Your task to perform on an android device: change notification settings in the gmail app Image 0: 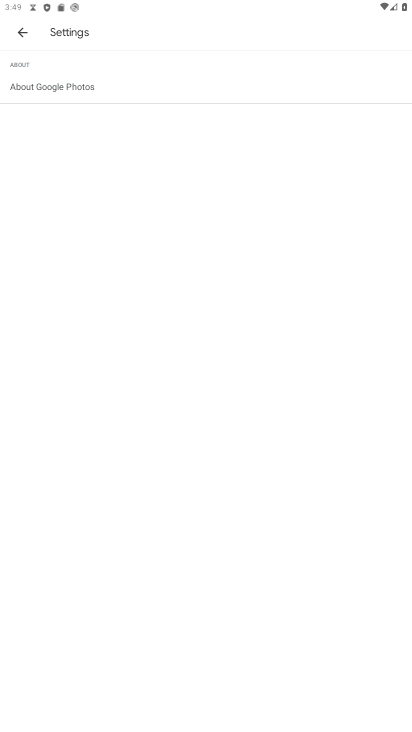
Step 0: press home button
Your task to perform on an android device: change notification settings in the gmail app Image 1: 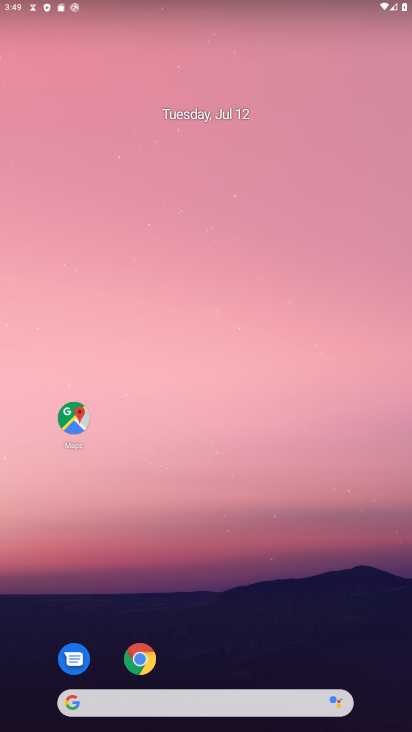
Step 1: press home button
Your task to perform on an android device: change notification settings in the gmail app Image 2: 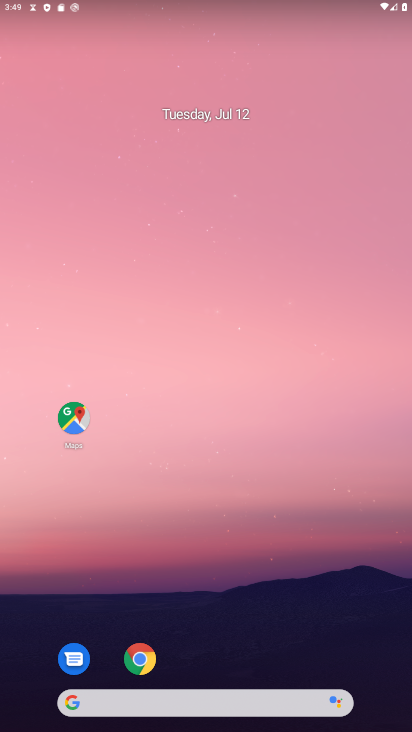
Step 2: drag from (239, 630) to (214, 94)
Your task to perform on an android device: change notification settings in the gmail app Image 3: 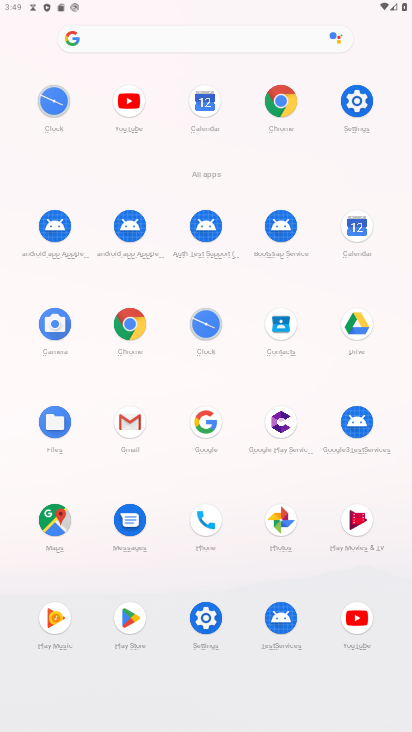
Step 3: click (127, 430)
Your task to perform on an android device: change notification settings in the gmail app Image 4: 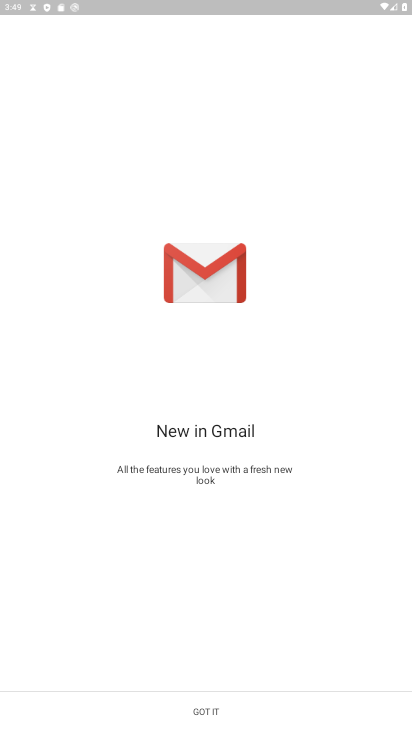
Step 4: click (206, 709)
Your task to perform on an android device: change notification settings in the gmail app Image 5: 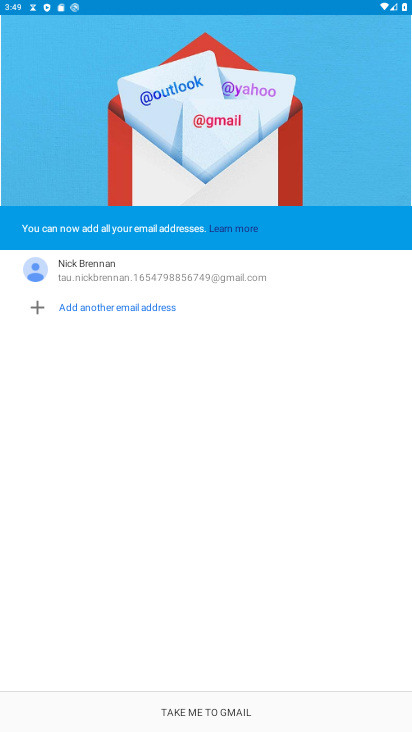
Step 5: click (206, 709)
Your task to perform on an android device: change notification settings in the gmail app Image 6: 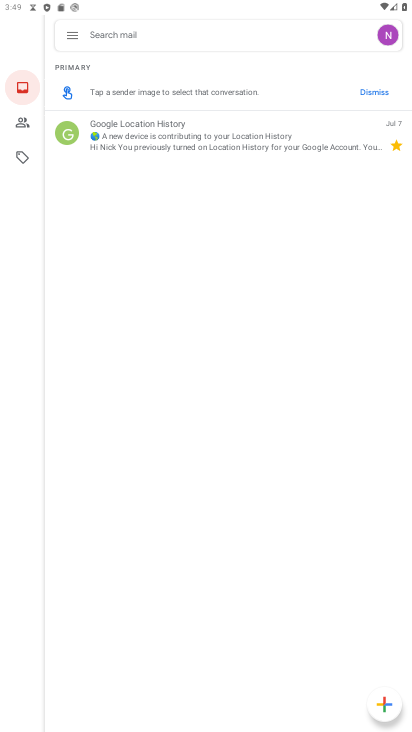
Step 6: click (68, 33)
Your task to perform on an android device: change notification settings in the gmail app Image 7: 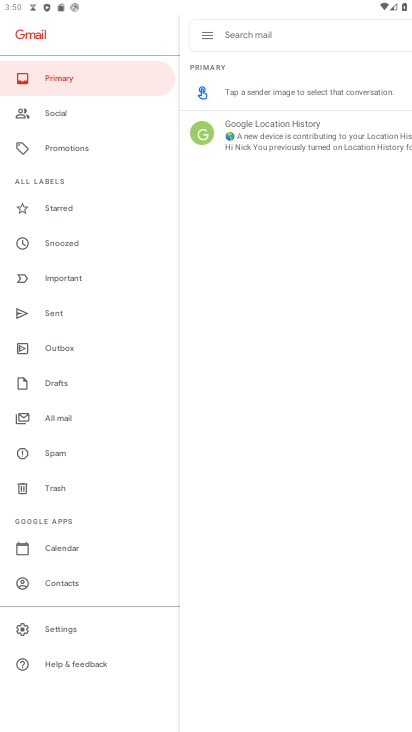
Step 7: click (74, 624)
Your task to perform on an android device: change notification settings in the gmail app Image 8: 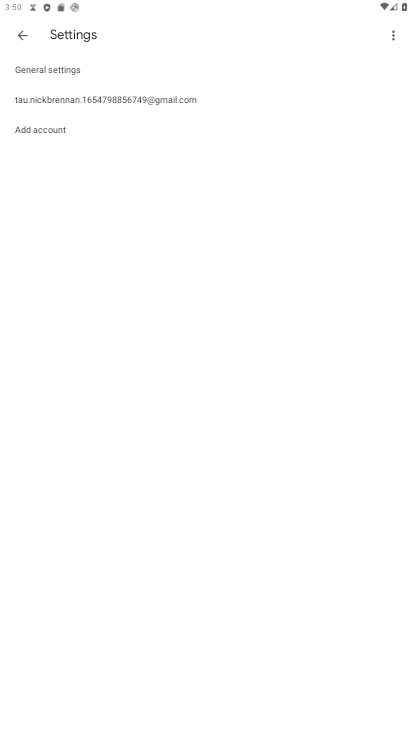
Step 8: click (65, 104)
Your task to perform on an android device: change notification settings in the gmail app Image 9: 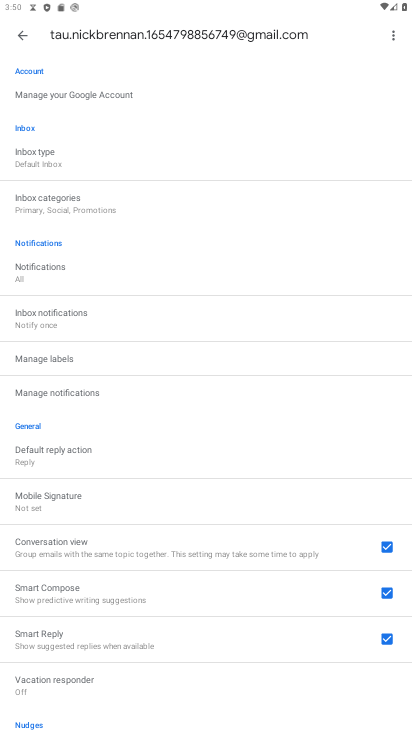
Step 9: click (59, 394)
Your task to perform on an android device: change notification settings in the gmail app Image 10: 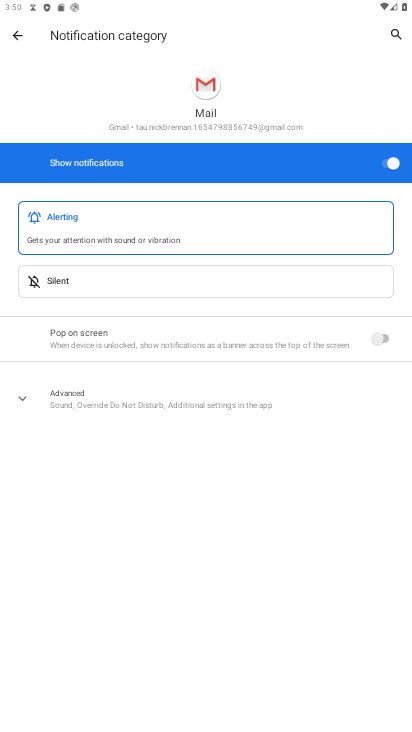
Step 10: click (392, 164)
Your task to perform on an android device: change notification settings in the gmail app Image 11: 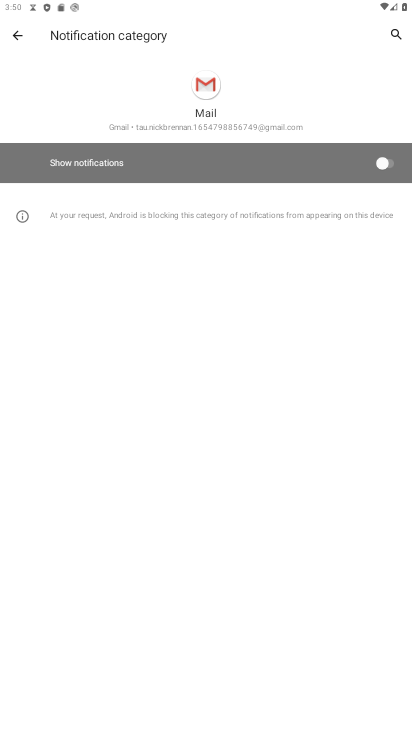
Step 11: task complete